Your task to perform on an android device: toggle show notifications on the lock screen Image 0: 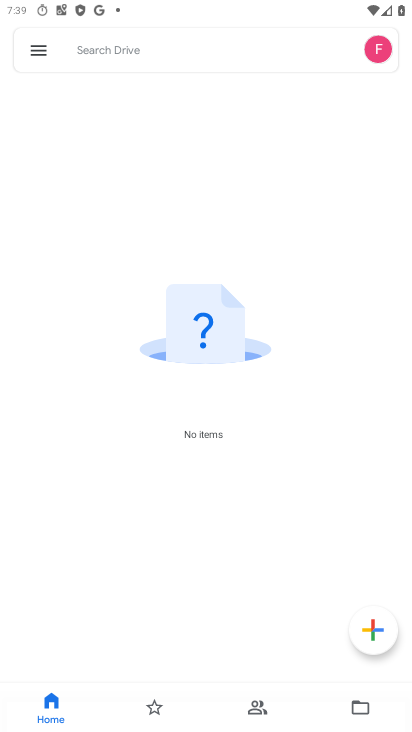
Step 0: press home button
Your task to perform on an android device: toggle show notifications on the lock screen Image 1: 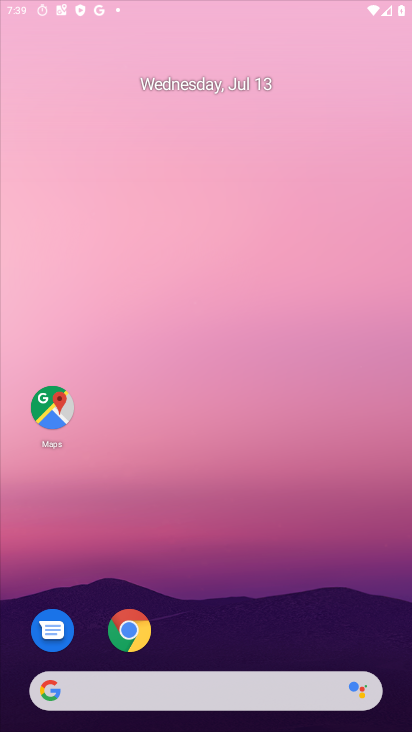
Step 1: drag from (377, 649) to (260, 29)
Your task to perform on an android device: toggle show notifications on the lock screen Image 2: 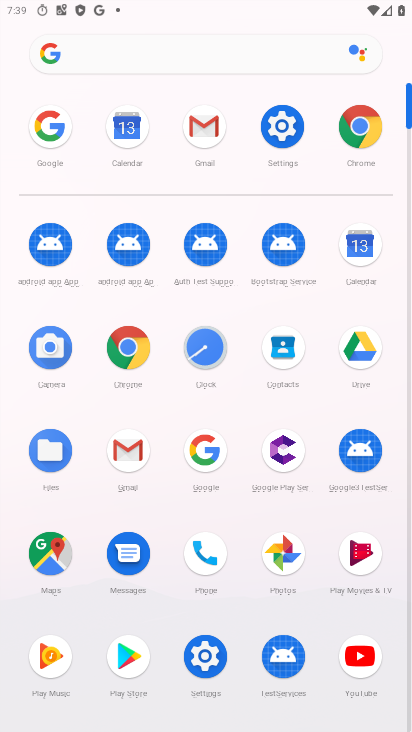
Step 2: click (285, 137)
Your task to perform on an android device: toggle show notifications on the lock screen Image 3: 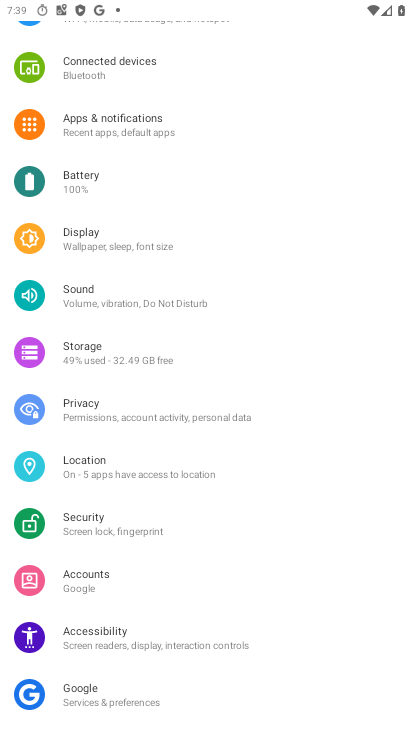
Step 3: click (130, 126)
Your task to perform on an android device: toggle show notifications on the lock screen Image 4: 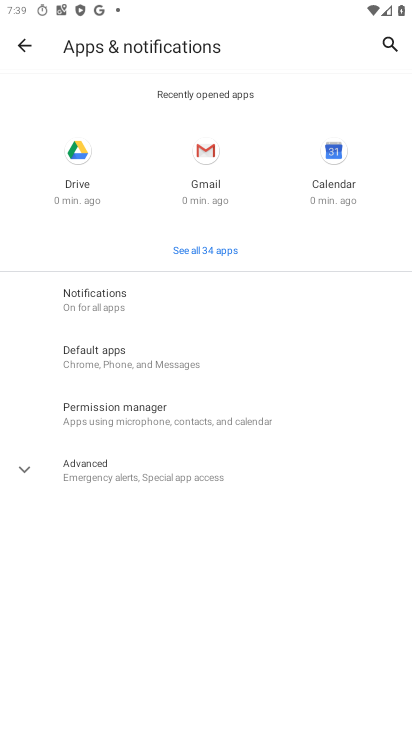
Step 4: click (127, 298)
Your task to perform on an android device: toggle show notifications on the lock screen Image 5: 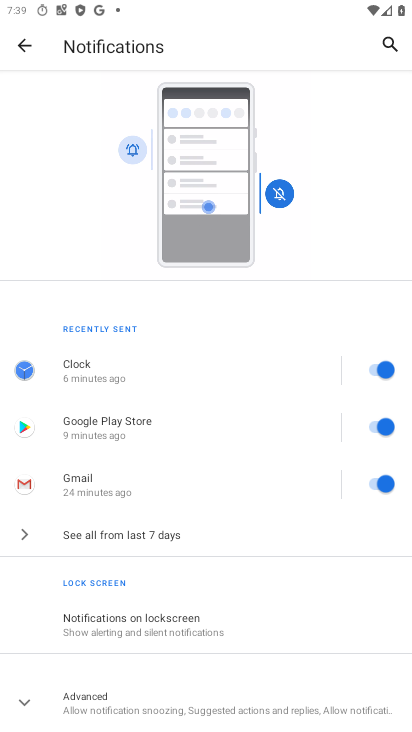
Step 5: click (174, 638)
Your task to perform on an android device: toggle show notifications on the lock screen Image 6: 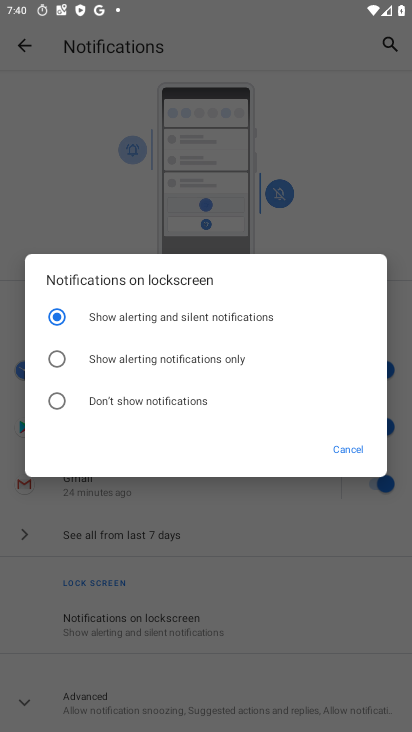
Step 6: click (55, 405)
Your task to perform on an android device: toggle show notifications on the lock screen Image 7: 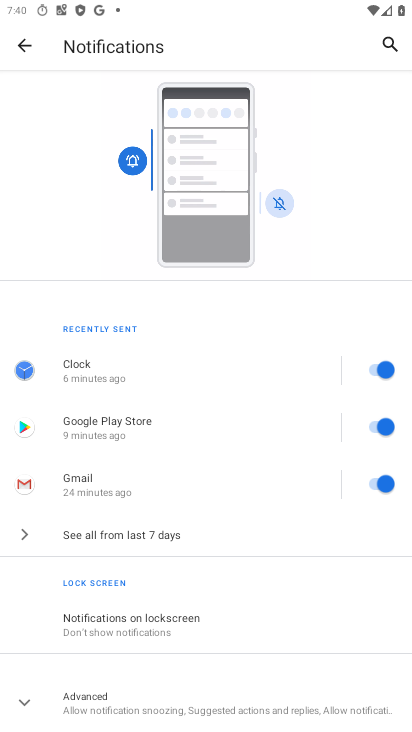
Step 7: task complete